Your task to perform on an android device: Go to Wikipedia Image 0: 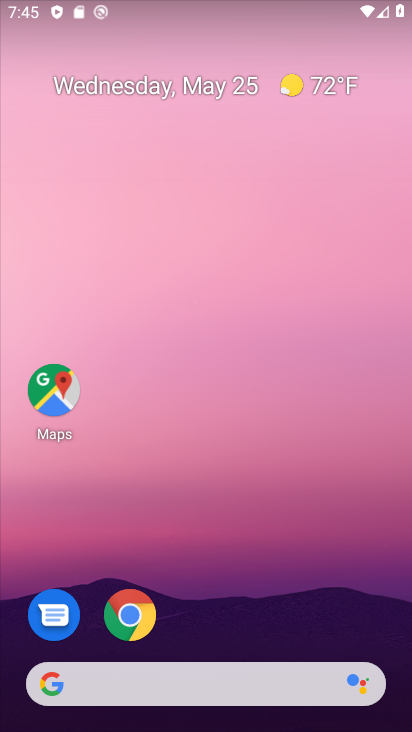
Step 0: click (135, 604)
Your task to perform on an android device: Go to Wikipedia Image 1: 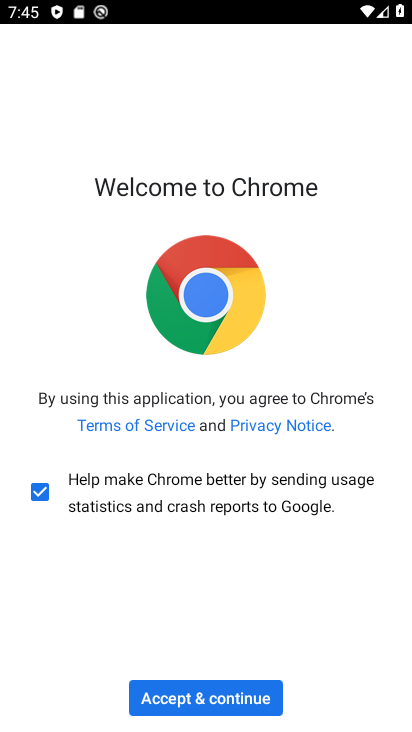
Step 1: click (231, 696)
Your task to perform on an android device: Go to Wikipedia Image 2: 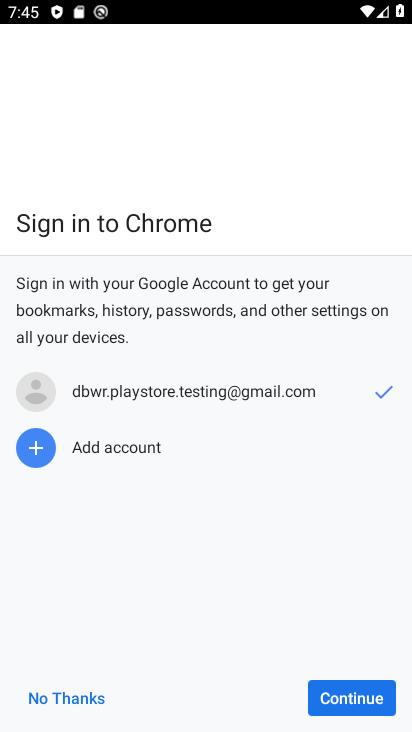
Step 2: click (341, 691)
Your task to perform on an android device: Go to Wikipedia Image 3: 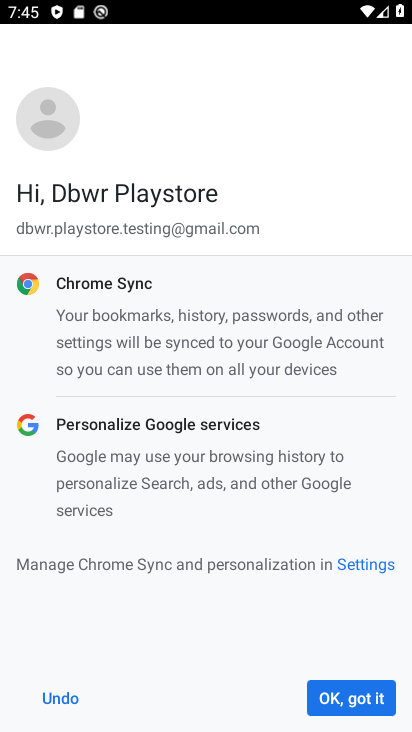
Step 3: click (341, 691)
Your task to perform on an android device: Go to Wikipedia Image 4: 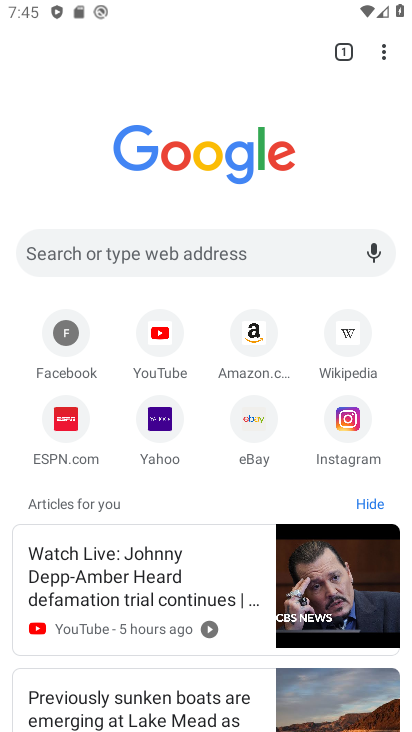
Step 4: click (348, 334)
Your task to perform on an android device: Go to Wikipedia Image 5: 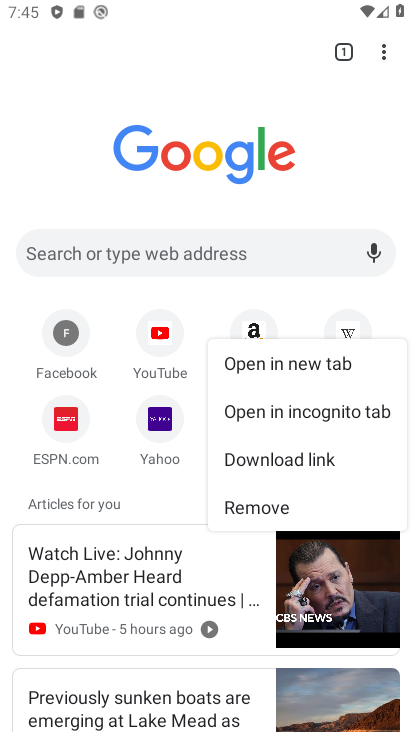
Step 5: click (348, 328)
Your task to perform on an android device: Go to Wikipedia Image 6: 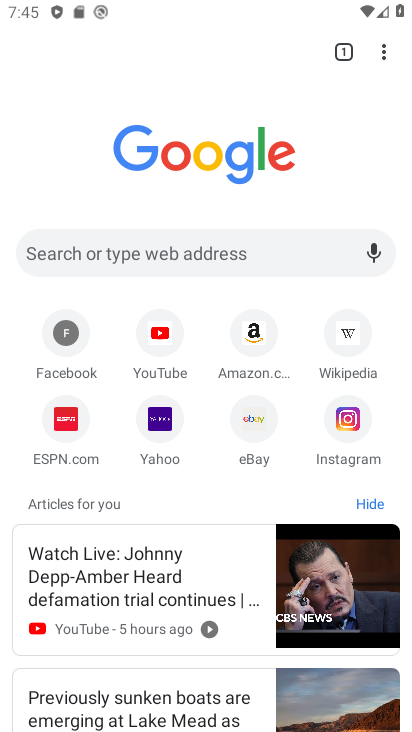
Step 6: click (348, 322)
Your task to perform on an android device: Go to Wikipedia Image 7: 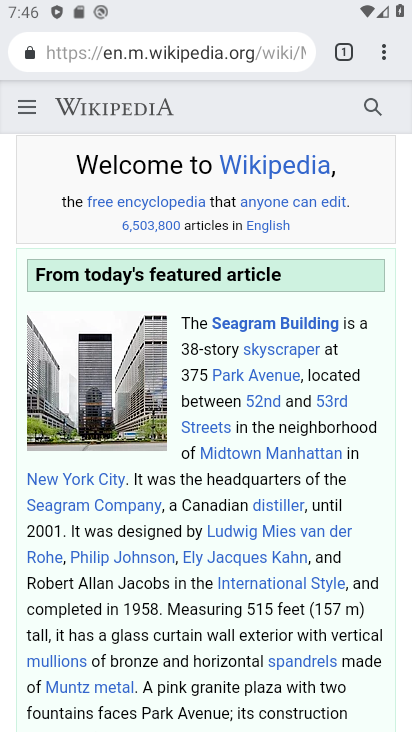
Step 7: task complete